Your task to perform on an android device: Open Reddit.com Image 0: 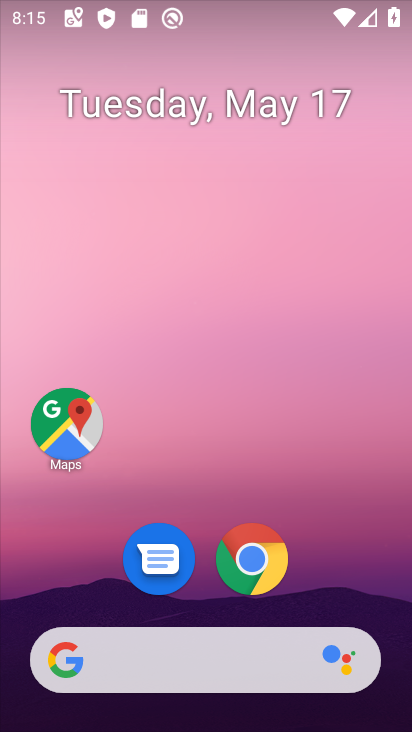
Step 0: click (183, 670)
Your task to perform on an android device: Open Reddit.com Image 1: 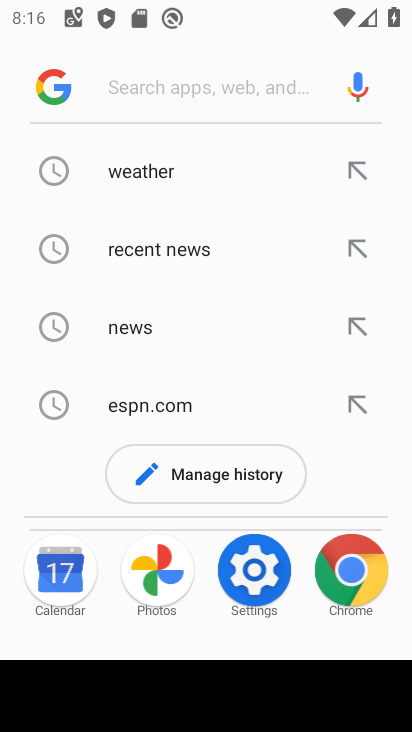
Step 1: type "reddit.com"
Your task to perform on an android device: Open Reddit.com Image 2: 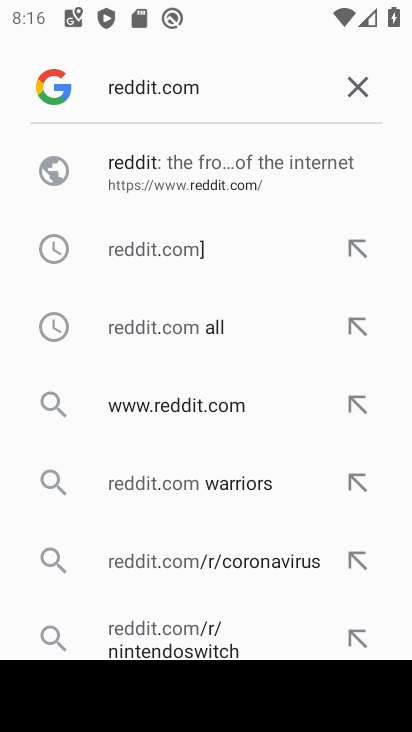
Step 2: click (241, 177)
Your task to perform on an android device: Open Reddit.com Image 3: 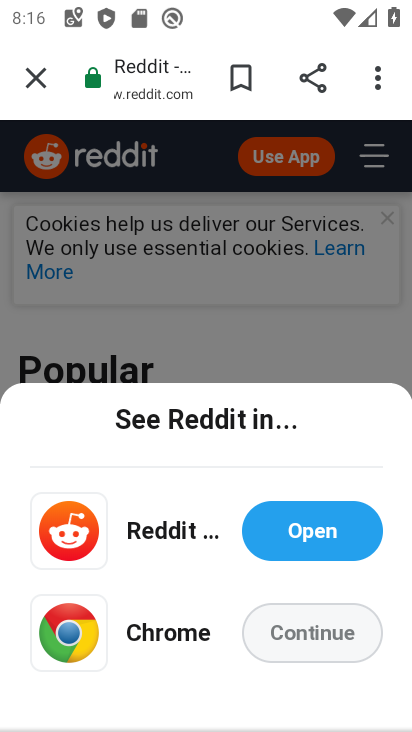
Step 3: task complete